Your task to perform on an android device: delete a single message in the gmail app Image 0: 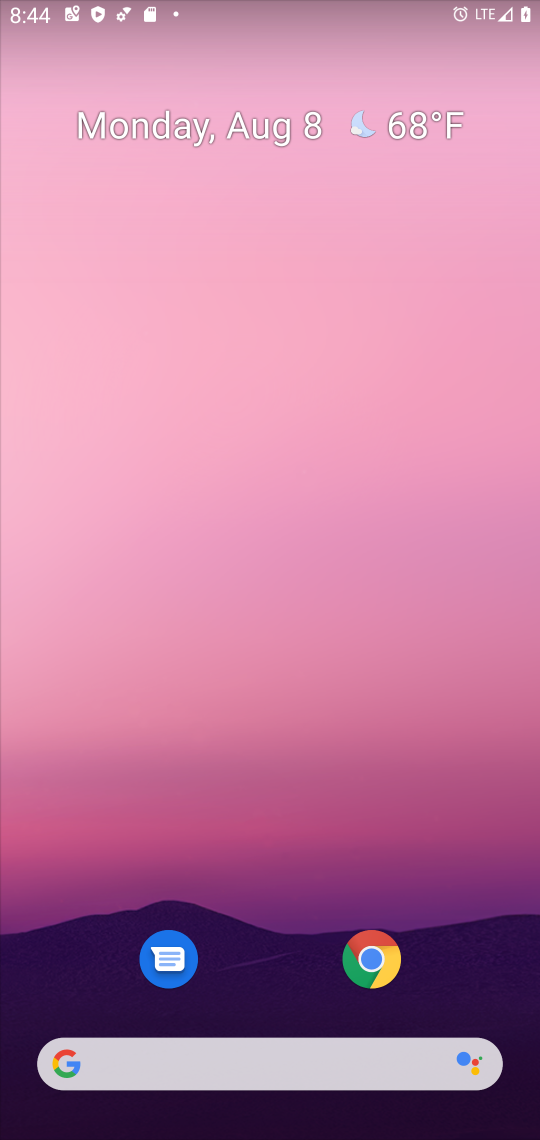
Step 0: drag from (470, 1008) to (358, 46)
Your task to perform on an android device: delete a single message in the gmail app Image 1: 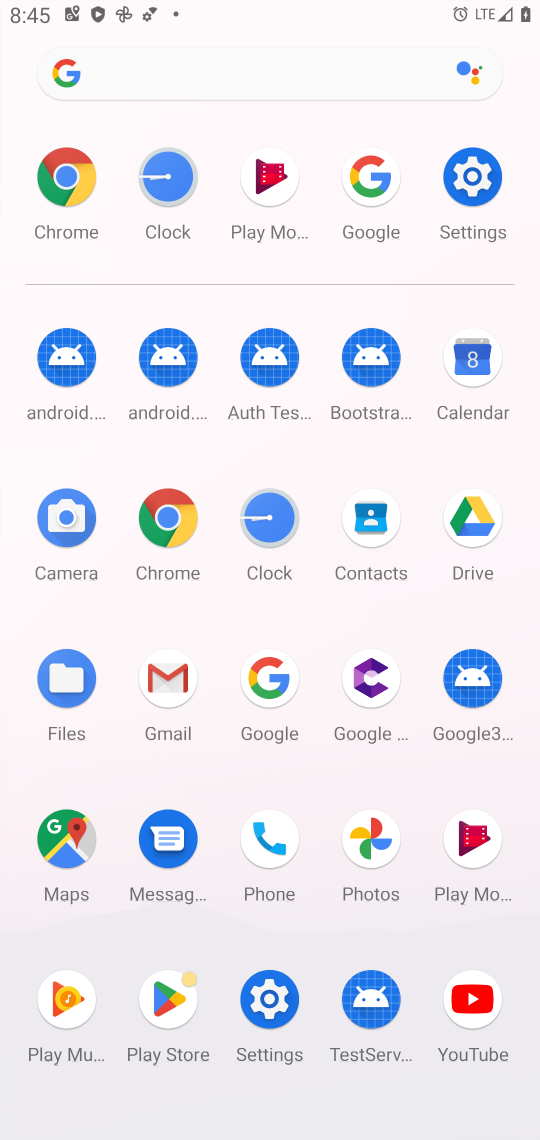
Step 1: click (173, 670)
Your task to perform on an android device: delete a single message in the gmail app Image 2: 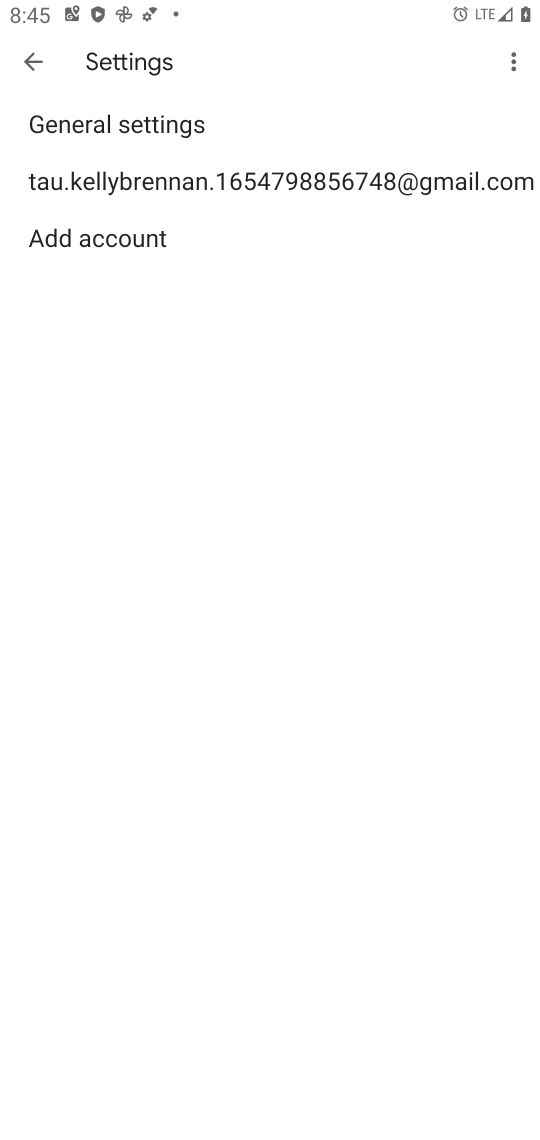
Step 2: press back button
Your task to perform on an android device: delete a single message in the gmail app Image 3: 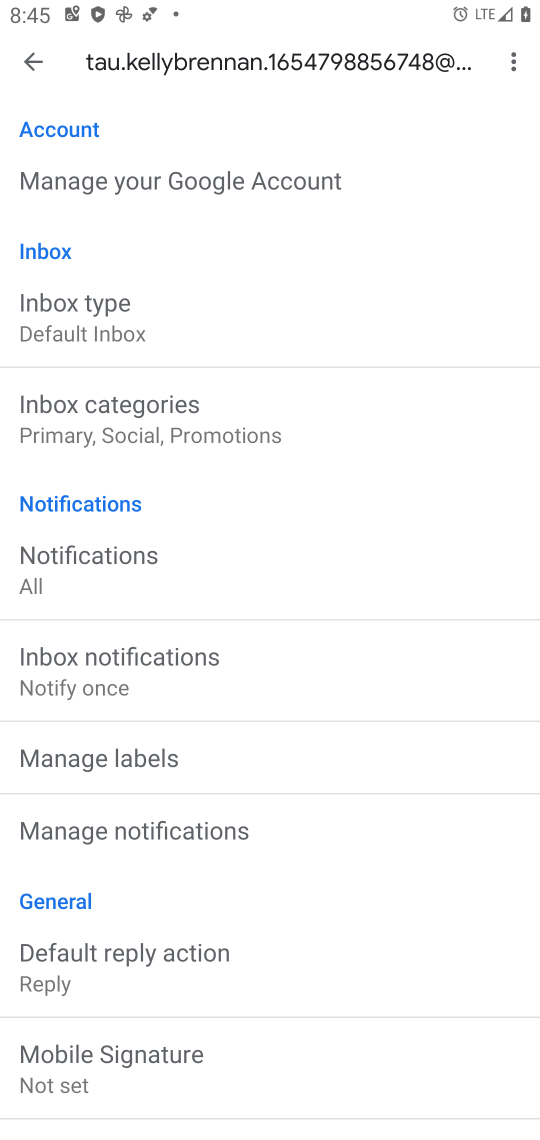
Step 3: press back button
Your task to perform on an android device: delete a single message in the gmail app Image 4: 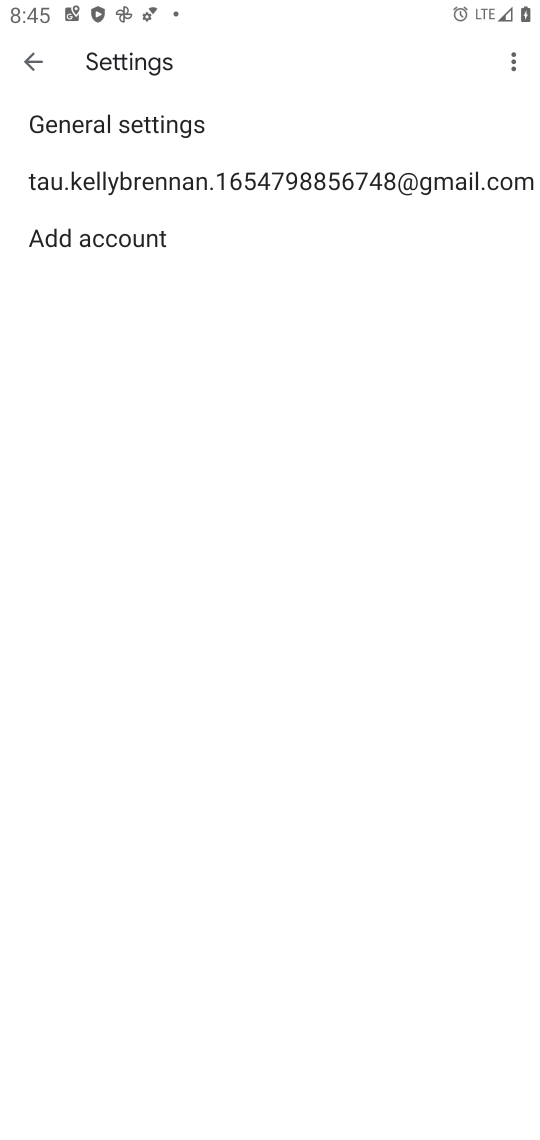
Step 4: press back button
Your task to perform on an android device: delete a single message in the gmail app Image 5: 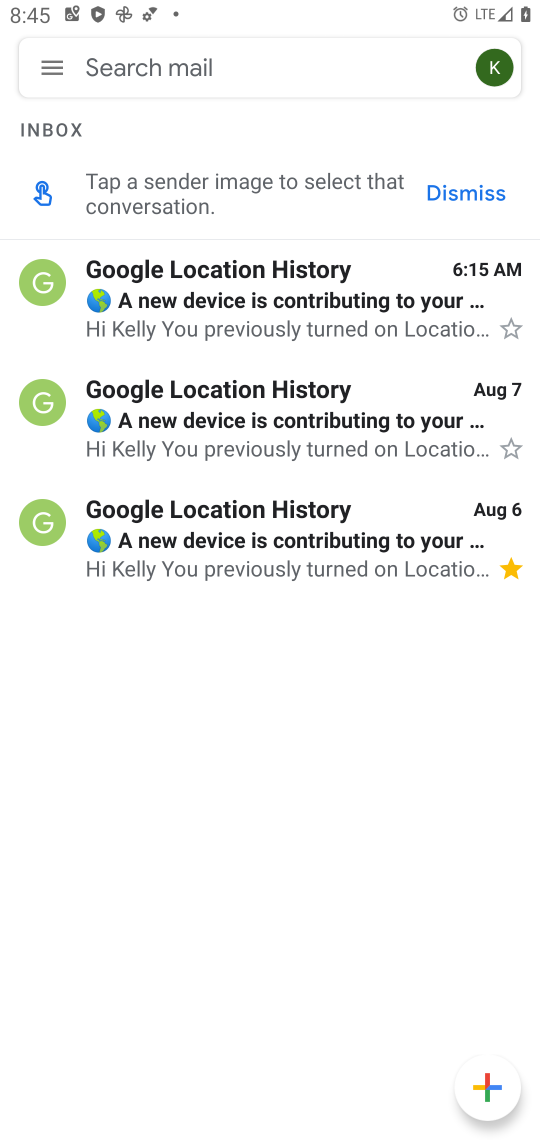
Step 5: click (178, 298)
Your task to perform on an android device: delete a single message in the gmail app Image 6: 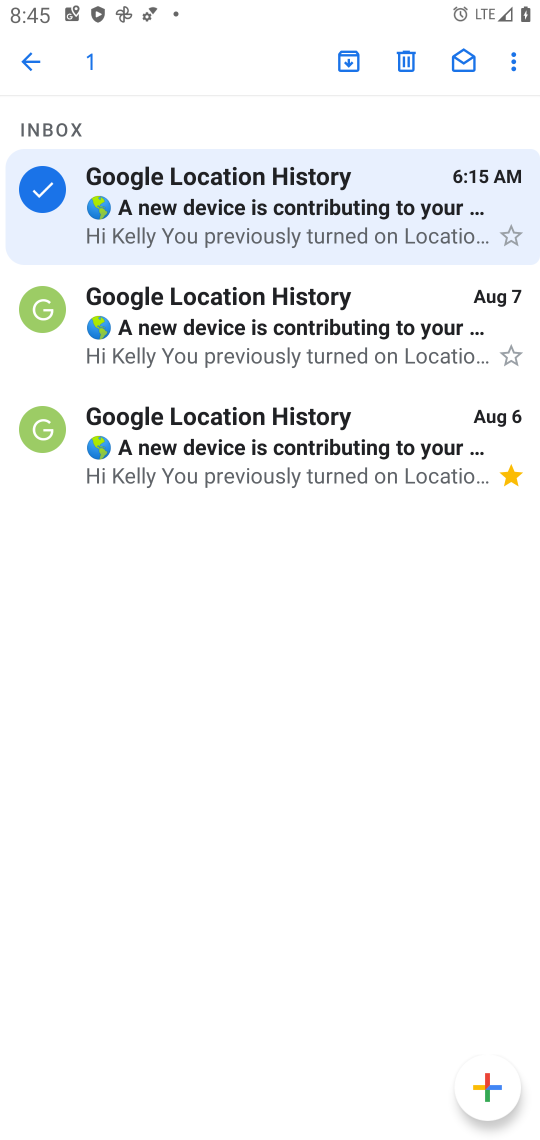
Step 6: click (402, 66)
Your task to perform on an android device: delete a single message in the gmail app Image 7: 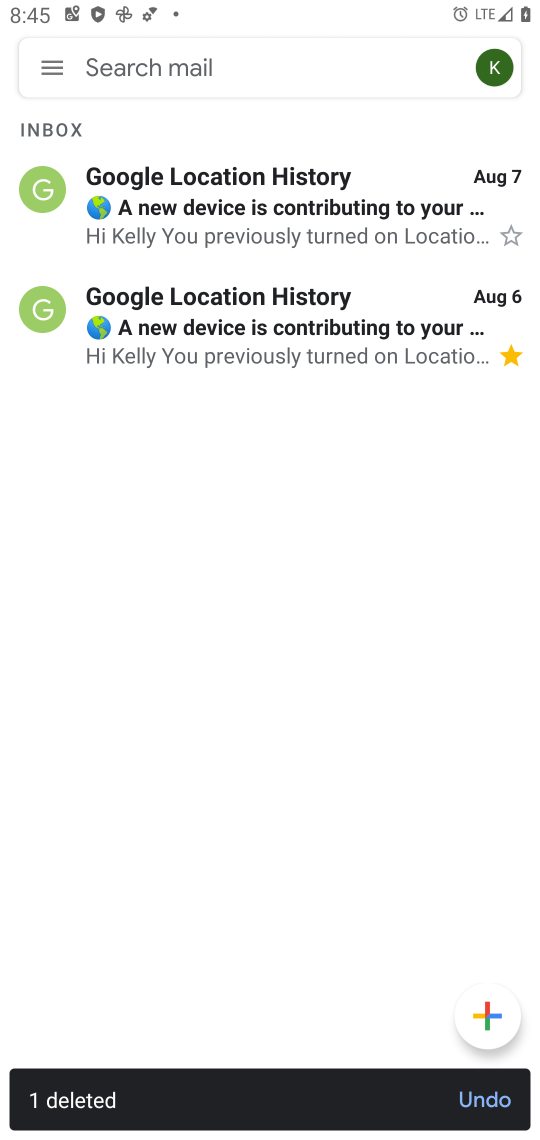
Step 7: task complete